Your task to perform on an android device: What's the weather going to be this weekend? Image 0: 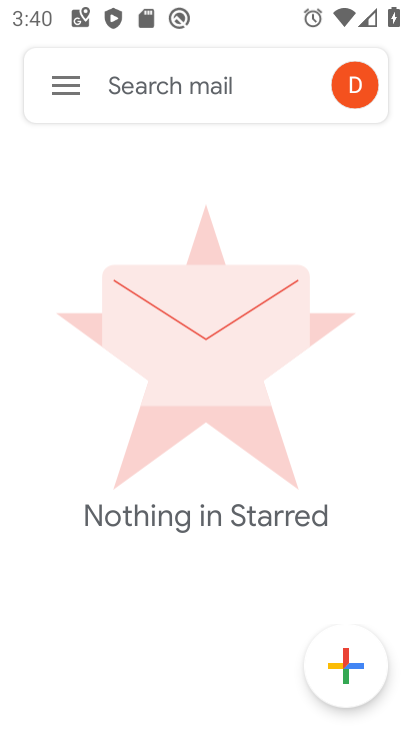
Step 0: press home button
Your task to perform on an android device: What's the weather going to be this weekend? Image 1: 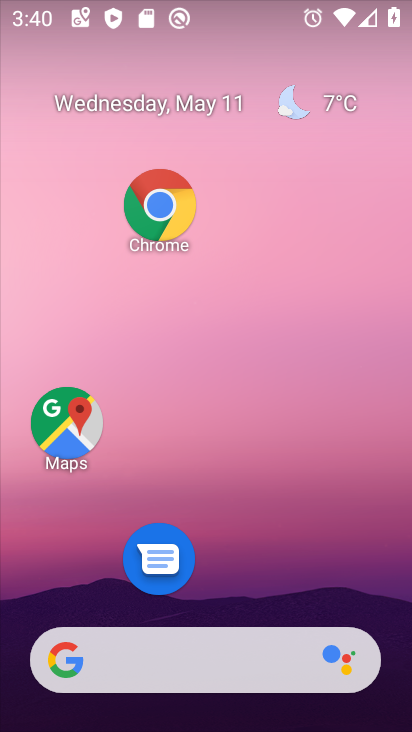
Step 1: drag from (176, 607) to (224, 176)
Your task to perform on an android device: What's the weather going to be this weekend? Image 2: 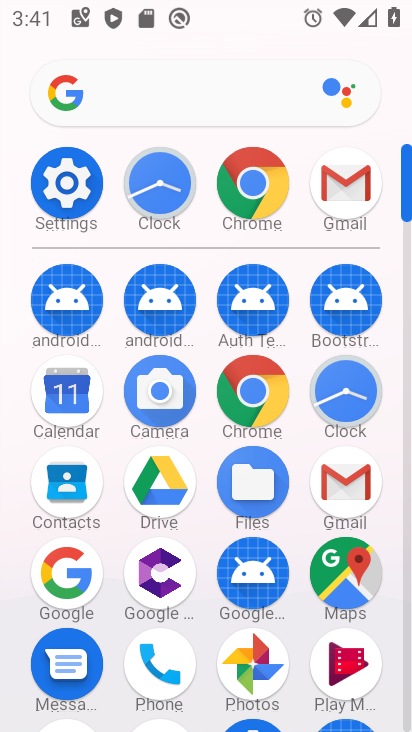
Step 2: click (72, 575)
Your task to perform on an android device: What's the weather going to be this weekend? Image 3: 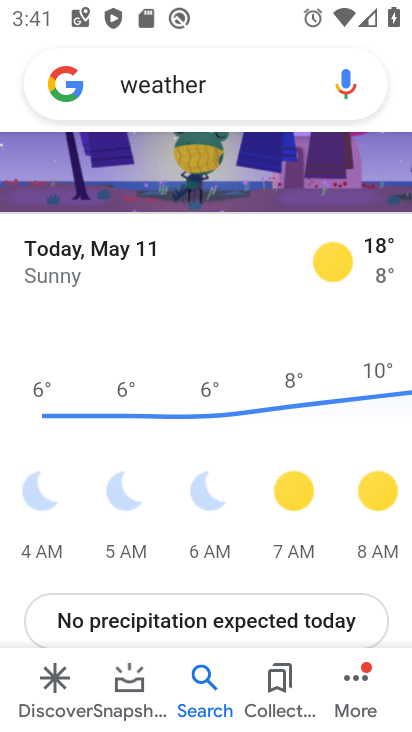
Step 3: task complete